Your task to perform on an android device: read, delete, or share a saved page in the chrome app Image 0: 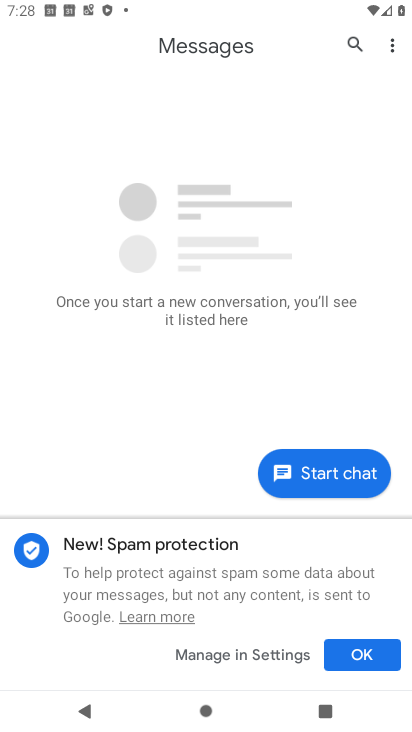
Step 0: press home button
Your task to perform on an android device: read, delete, or share a saved page in the chrome app Image 1: 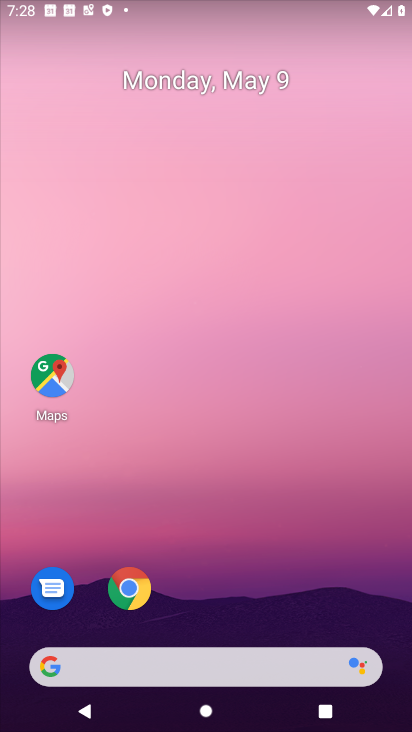
Step 1: drag from (199, 663) to (383, 174)
Your task to perform on an android device: read, delete, or share a saved page in the chrome app Image 2: 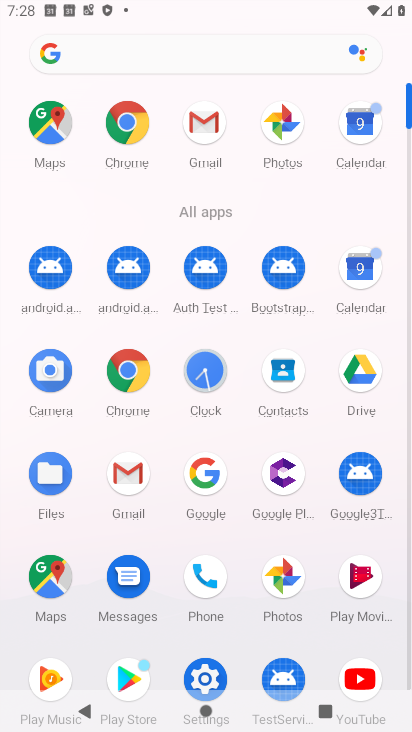
Step 2: click (120, 124)
Your task to perform on an android device: read, delete, or share a saved page in the chrome app Image 3: 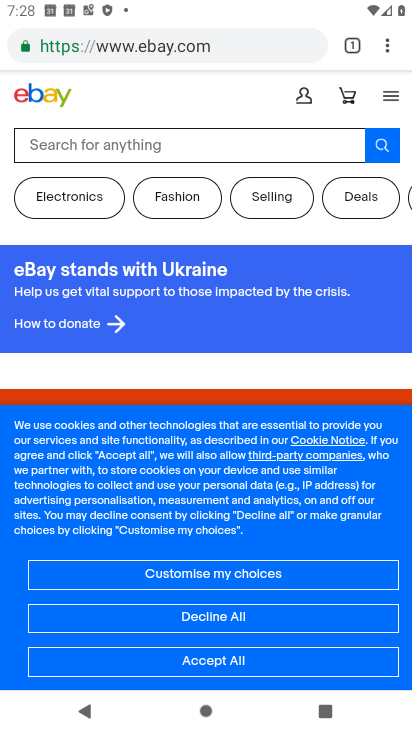
Step 3: drag from (387, 49) to (248, 295)
Your task to perform on an android device: read, delete, or share a saved page in the chrome app Image 4: 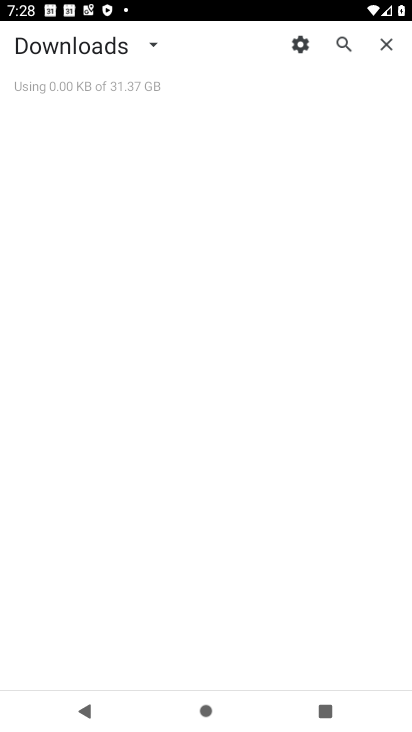
Step 4: click (143, 42)
Your task to perform on an android device: read, delete, or share a saved page in the chrome app Image 5: 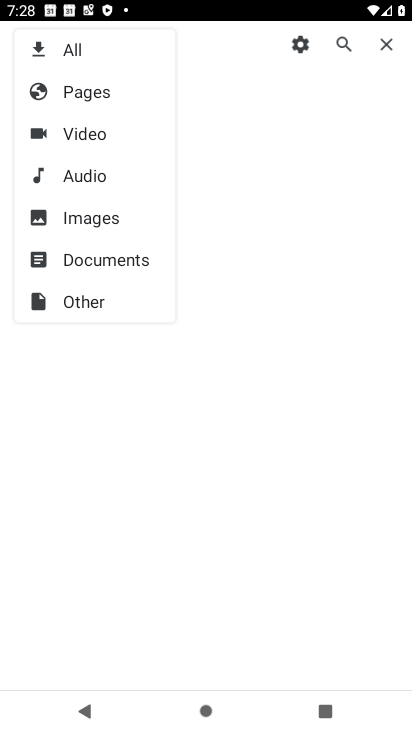
Step 5: click (91, 95)
Your task to perform on an android device: read, delete, or share a saved page in the chrome app Image 6: 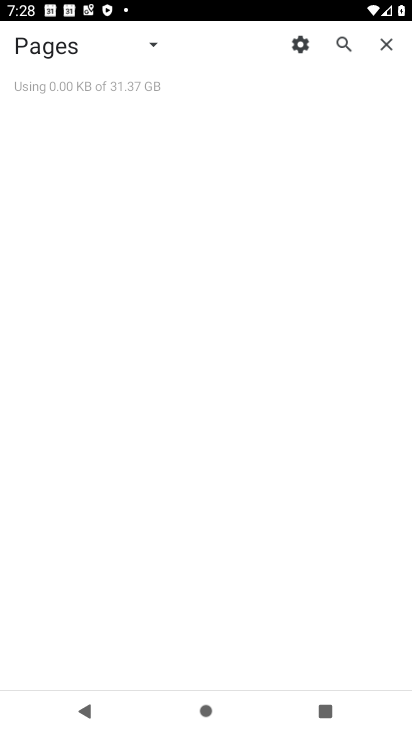
Step 6: task complete